Your task to perform on an android device: Turn on the flashlight Image 0: 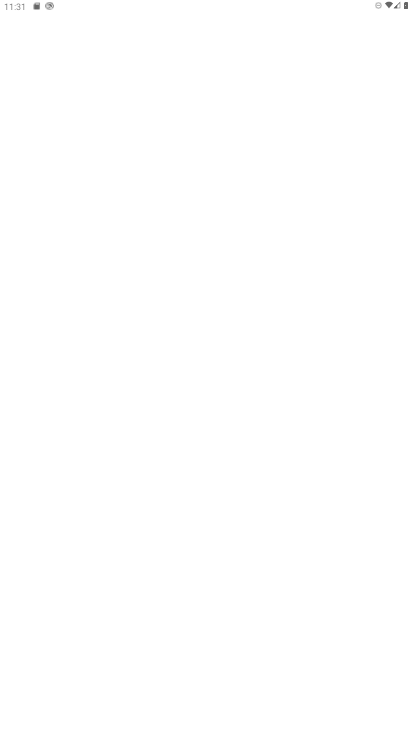
Step 0: drag from (380, 694) to (384, 83)
Your task to perform on an android device: Turn on the flashlight Image 1: 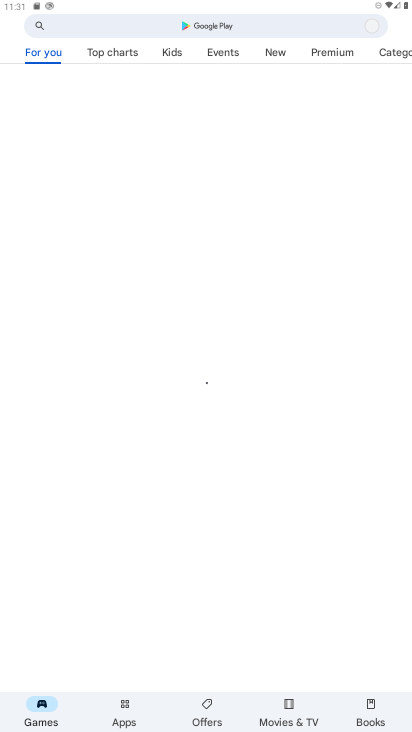
Step 1: press home button
Your task to perform on an android device: Turn on the flashlight Image 2: 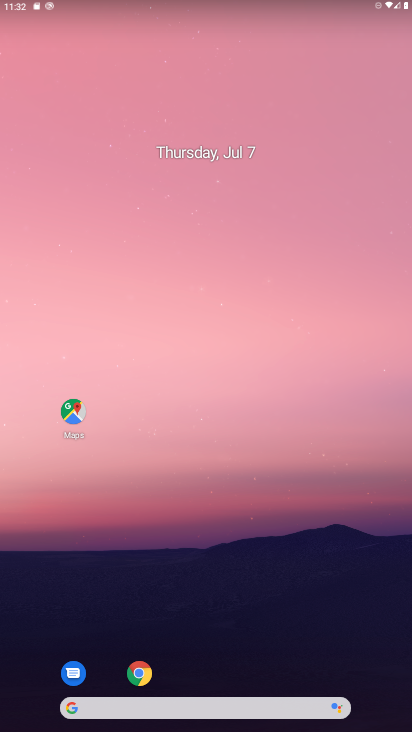
Step 2: drag from (391, 719) to (366, 40)
Your task to perform on an android device: Turn on the flashlight Image 3: 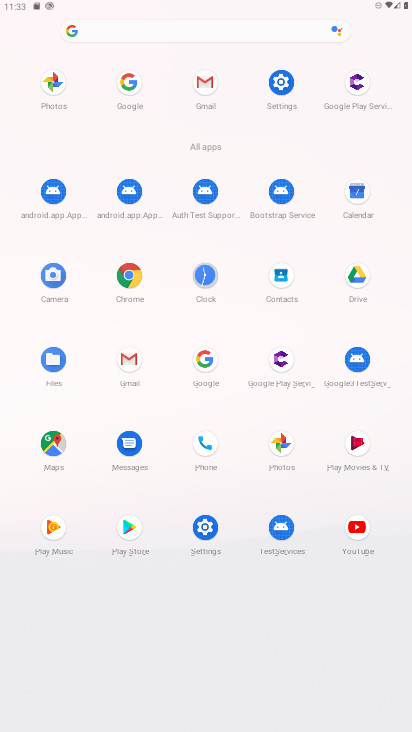
Step 3: click (275, 82)
Your task to perform on an android device: Turn on the flashlight Image 4: 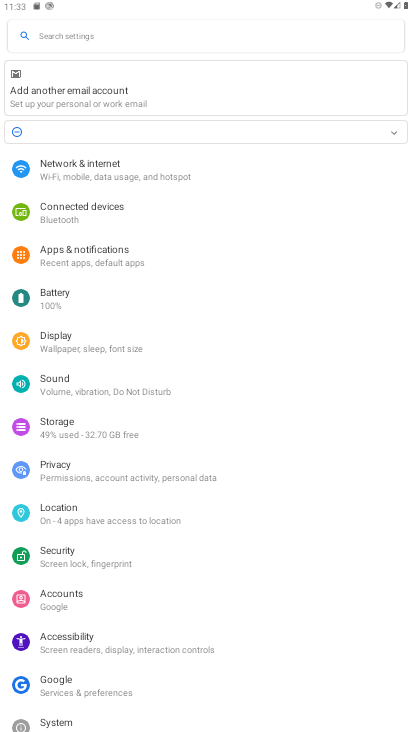
Step 4: click (62, 345)
Your task to perform on an android device: Turn on the flashlight Image 5: 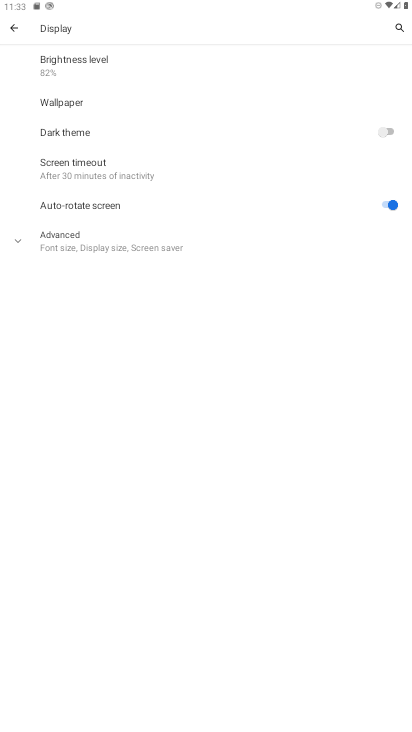
Step 5: task complete